Your task to perform on an android device: When is my next meeting? Image 0: 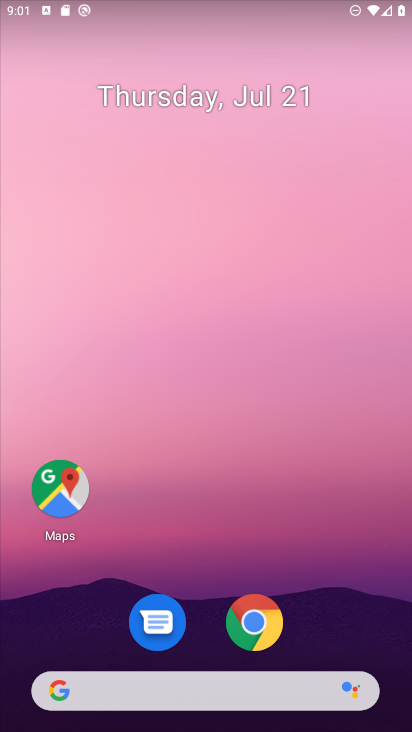
Step 0: drag from (317, 714) to (141, 73)
Your task to perform on an android device: When is my next meeting? Image 1: 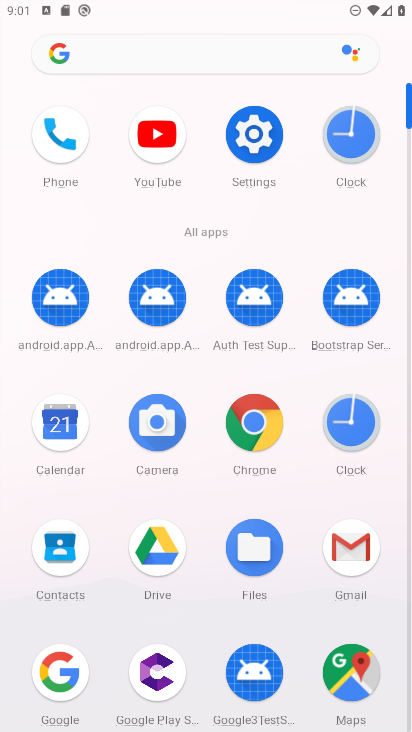
Step 1: click (56, 428)
Your task to perform on an android device: When is my next meeting? Image 2: 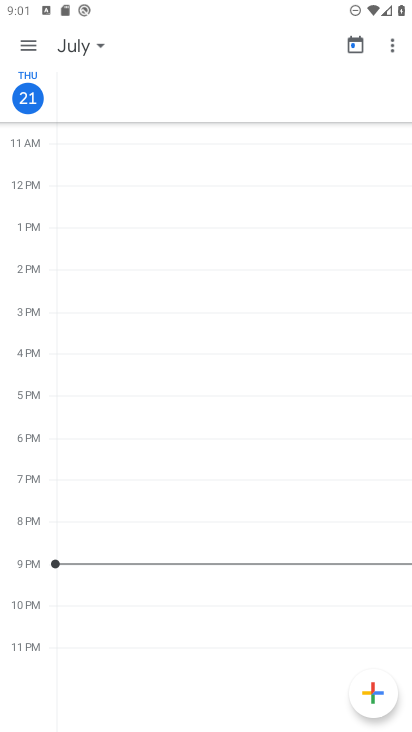
Step 2: click (396, 44)
Your task to perform on an android device: When is my next meeting? Image 3: 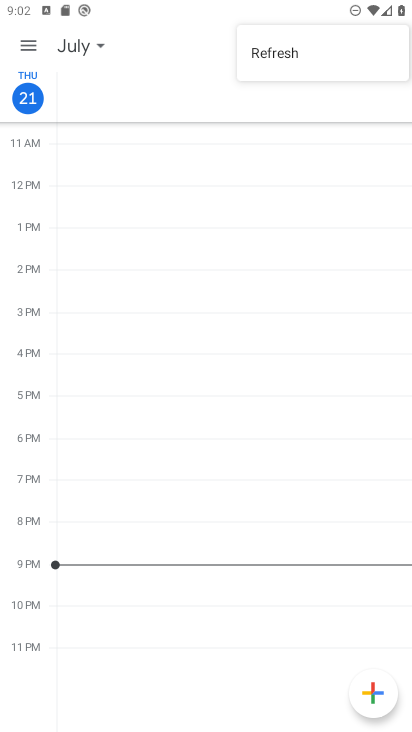
Step 3: click (19, 40)
Your task to perform on an android device: When is my next meeting? Image 4: 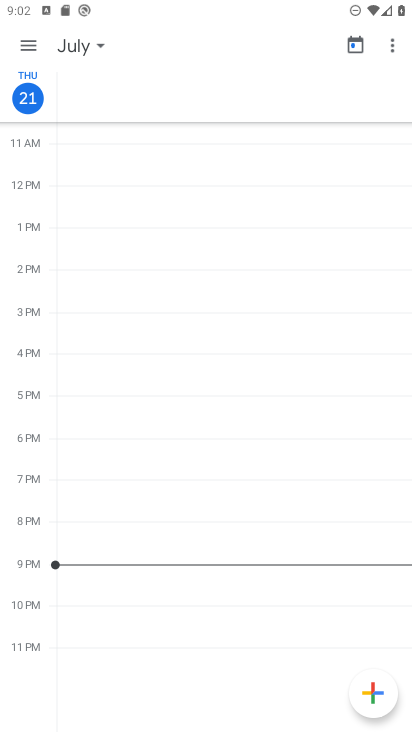
Step 4: click (29, 48)
Your task to perform on an android device: When is my next meeting? Image 5: 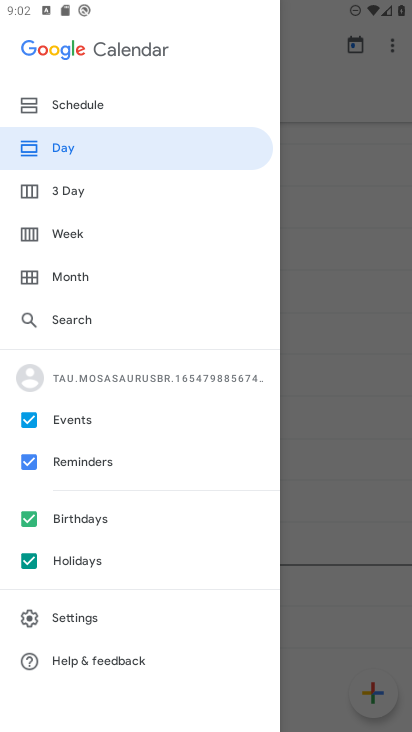
Step 5: click (89, 100)
Your task to perform on an android device: When is my next meeting? Image 6: 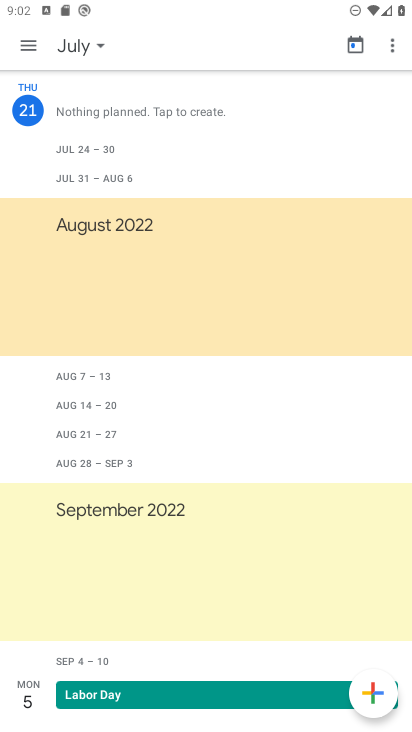
Step 6: task complete